Your task to perform on an android device: Open Google Chrome and open the bookmarks view Image 0: 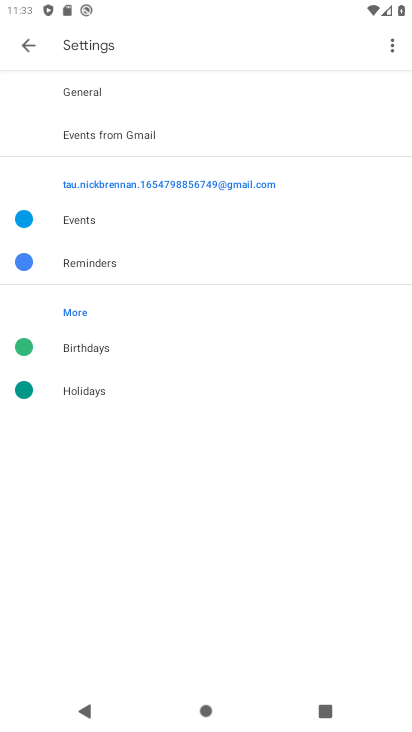
Step 0: press home button
Your task to perform on an android device: Open Google Chrome and open the bookmarks view Image 1: 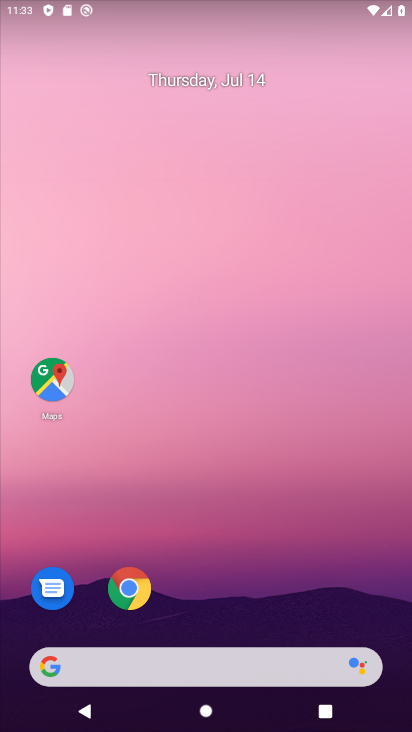
Step 1: click (138, 590)
Your task to perform on an android device: Open Google Chrome and open the bookmarks view Image 2: 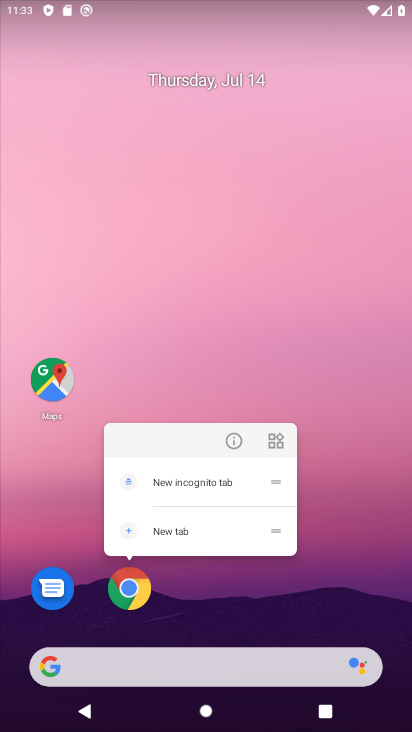
Step 2: click (125, 599)
Your task to perform on an android device: Open Google Chrome and open the bookmarks view Image 3: 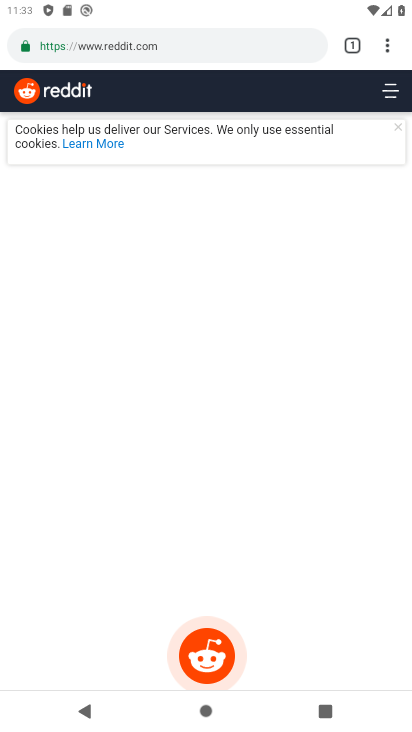
Step 3: click (388, 43)
Your task to perform on an android device: Open Google Chrome and open the bookmarks view Image 4: 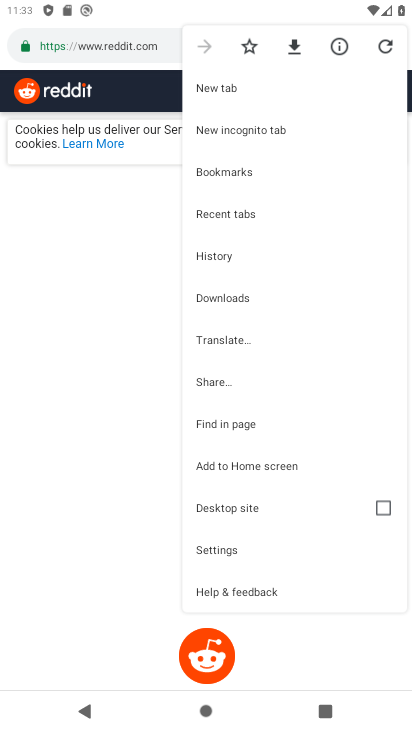
Step 4: click (233, 175)
Your task to perform on an android device: Open Google Chrome and open the bookmarks view Image 5: 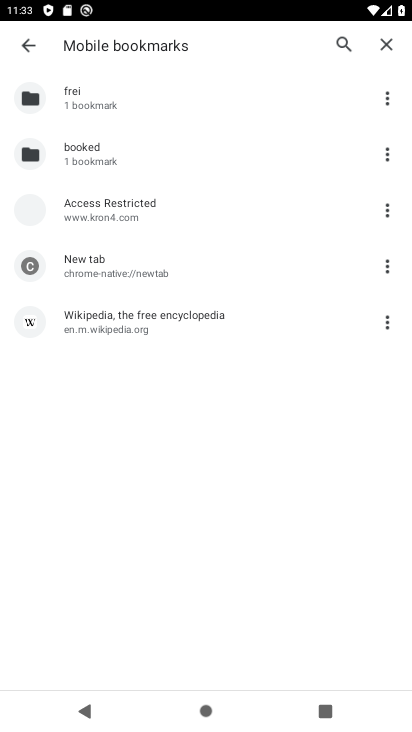
Step 5: task complete